Your task to perform on an android device: open app "Google Docs" Image 0: 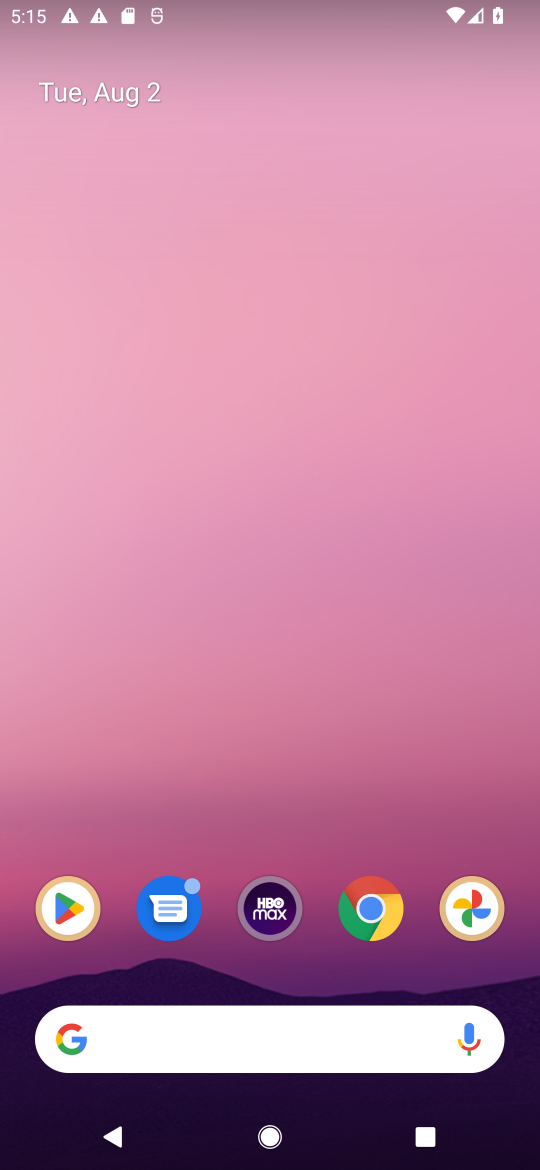
Step 0: press home button
Your task to perform on an android device: open app "Google Docs" Image 1: 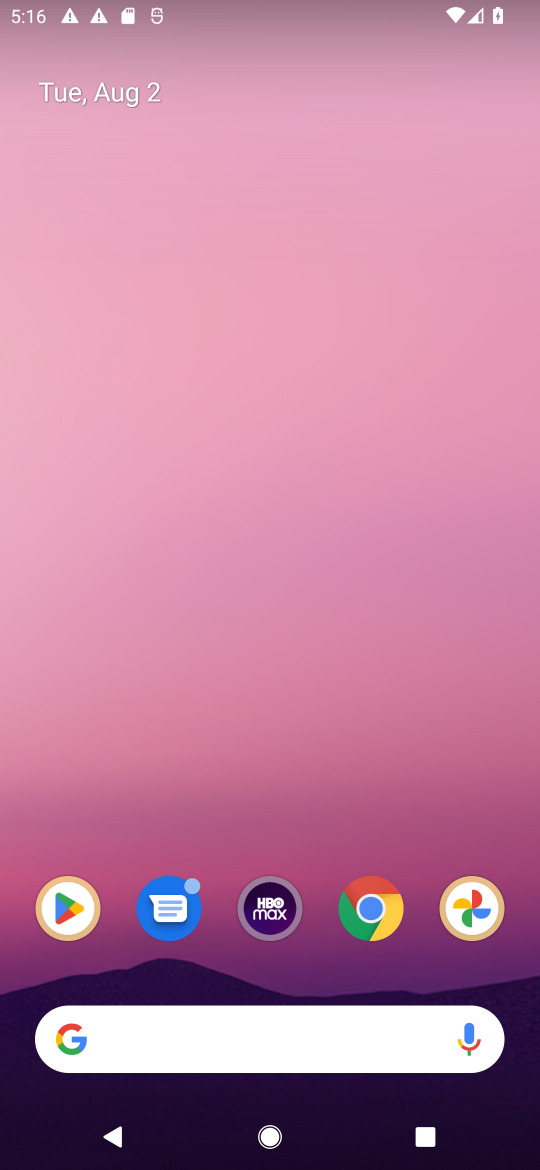
Step 1: click (64, 896)
Your task to perform on an android device: open app "Google Docs" Image 2: 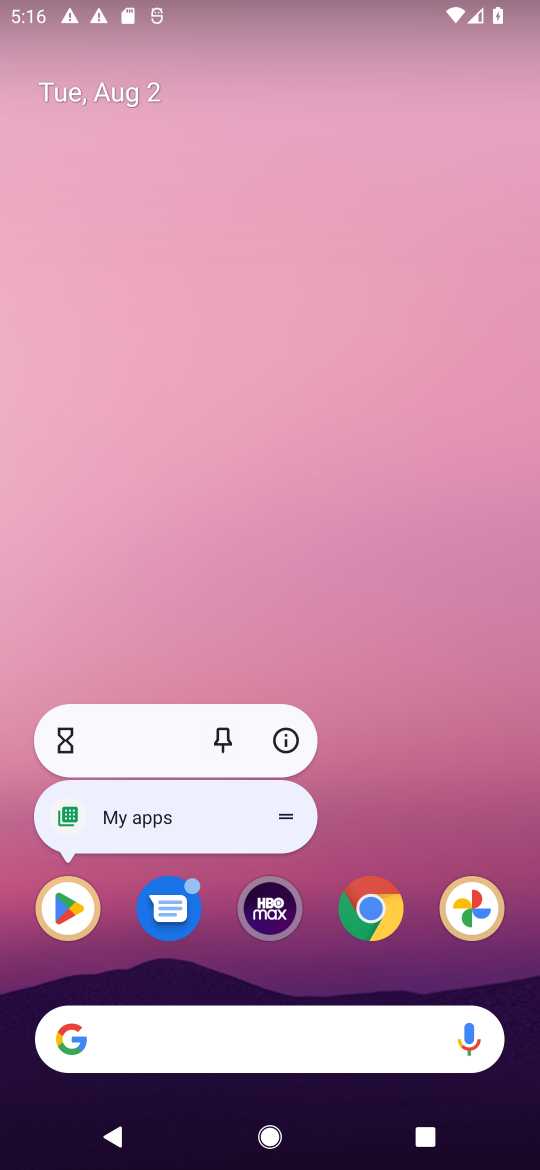
Step 2: click (64, 896)
Your task to perform on an android device: open app "Google Docs" Image 3: 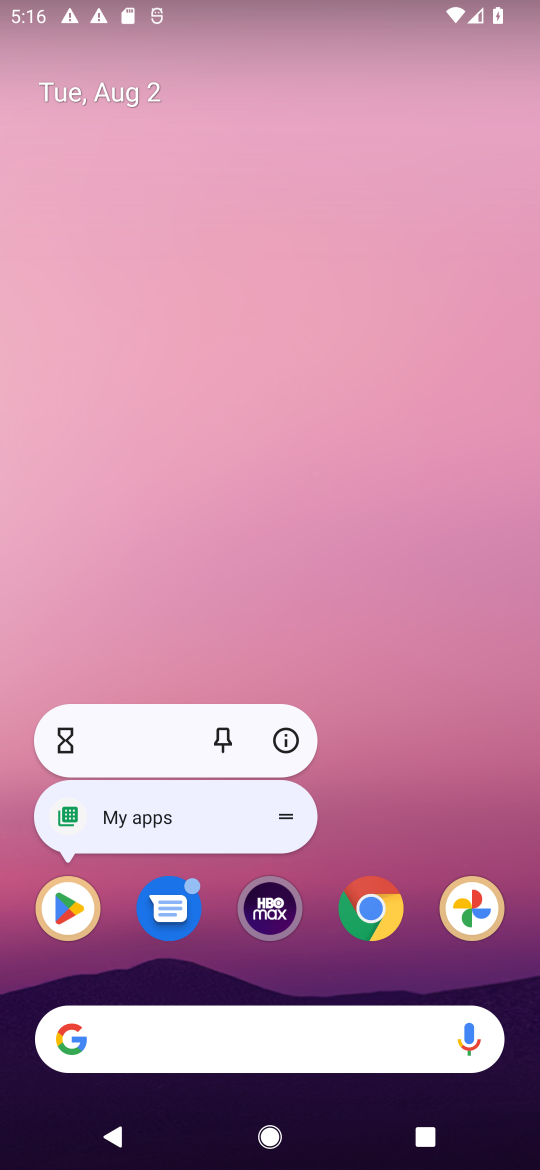
Step 3: click (64, 911)
Your task to perform on an android device: open app "Google Docs" Image 4: 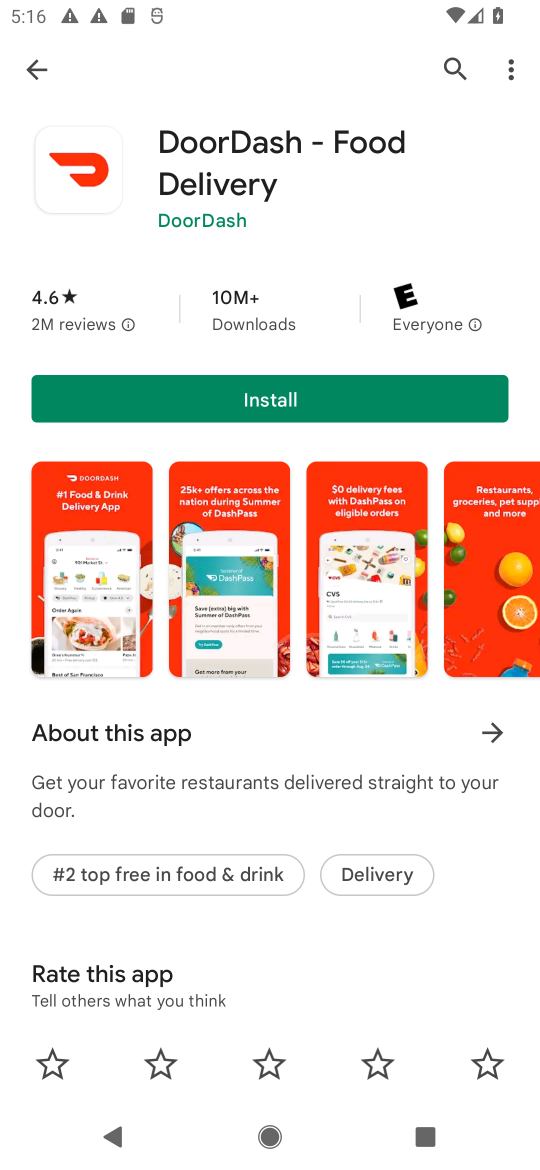
Step 4: click (35, 60)
Your task to perform on an android device: open app "Google Docs" Image 5: 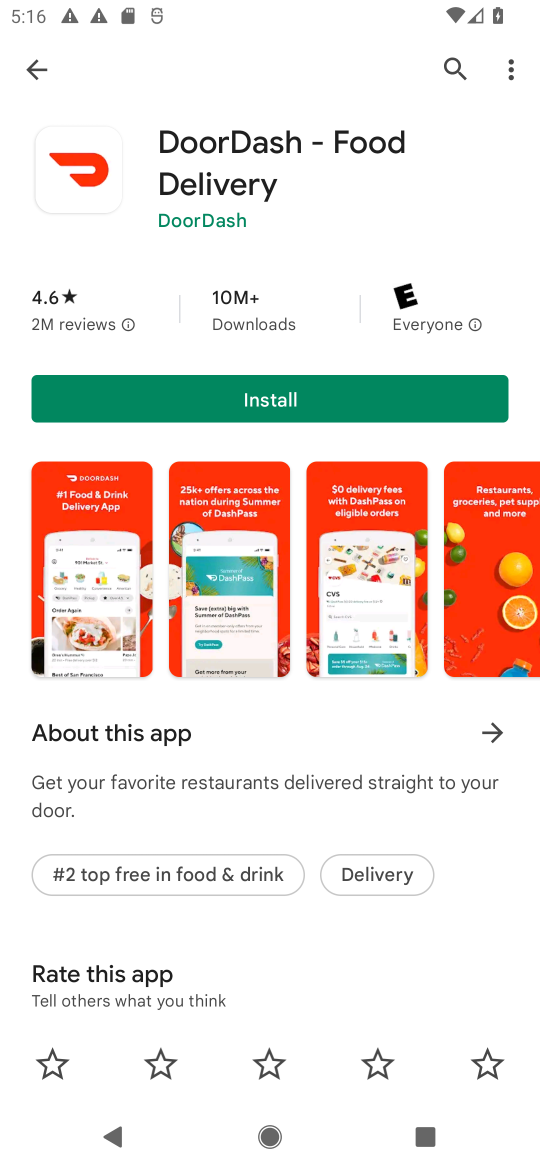
Step 5: click (458, 58)
Your task to perform on an android device: open app "Google Docs" Image 6: 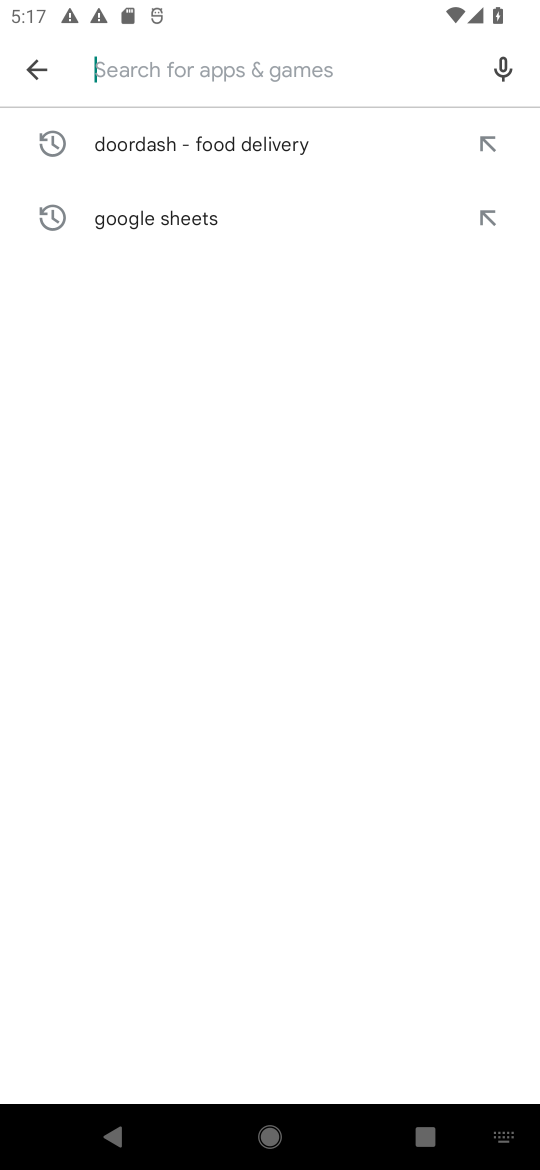
Step 6: type "Google Docs"
Your task to perform on an android device: open app "Google Docs" Image 7: 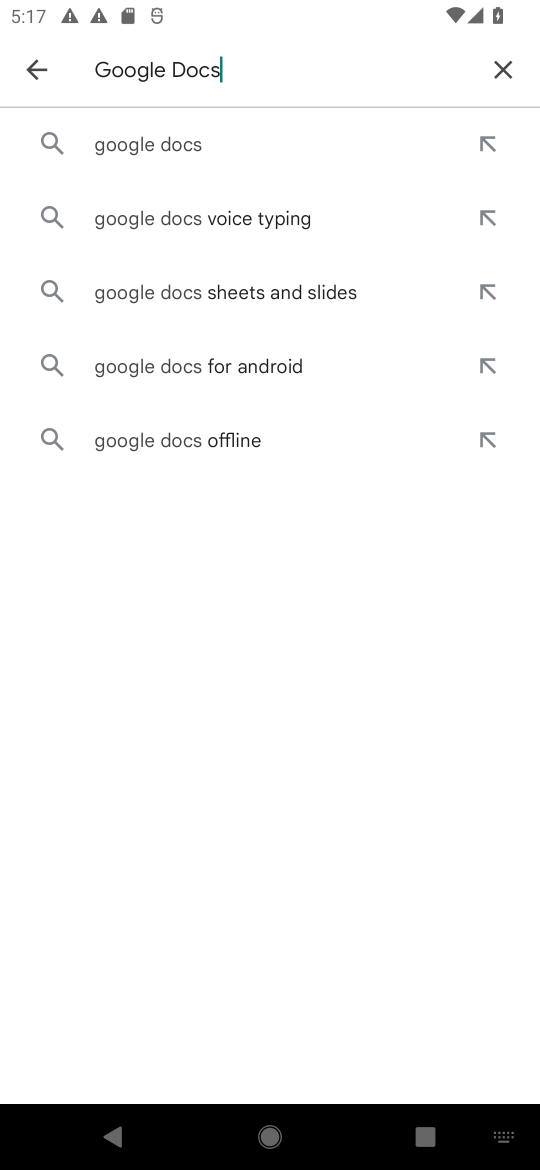
Step 7: click (181, 136)
Your task to perform on an android device: open app "Google Docs" Image 8: 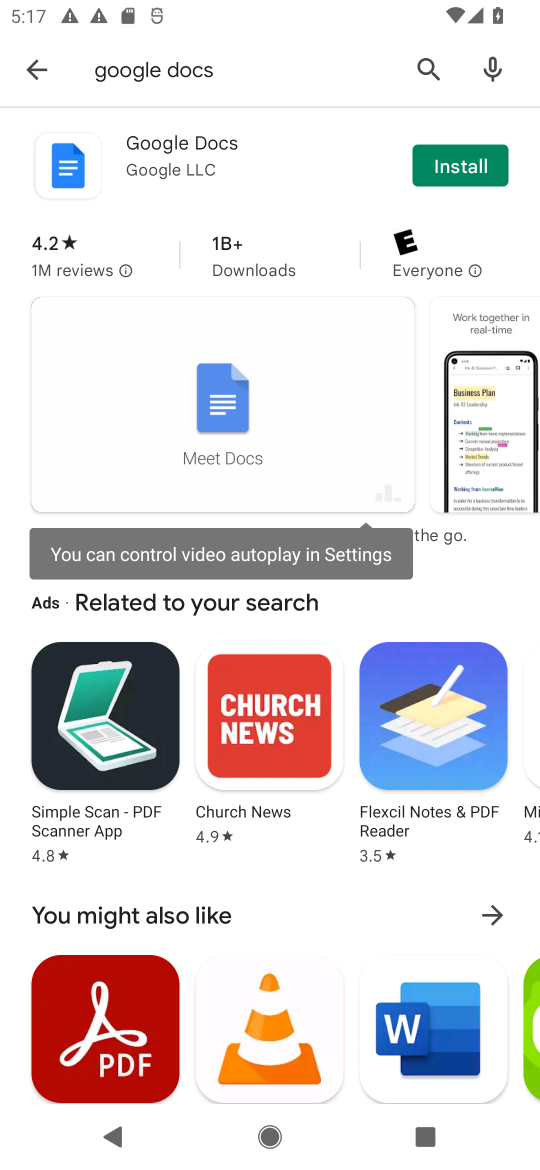
Step 8: click (242, 137)
Your task to perform on an android device: open app "Google Docs" Image 9: 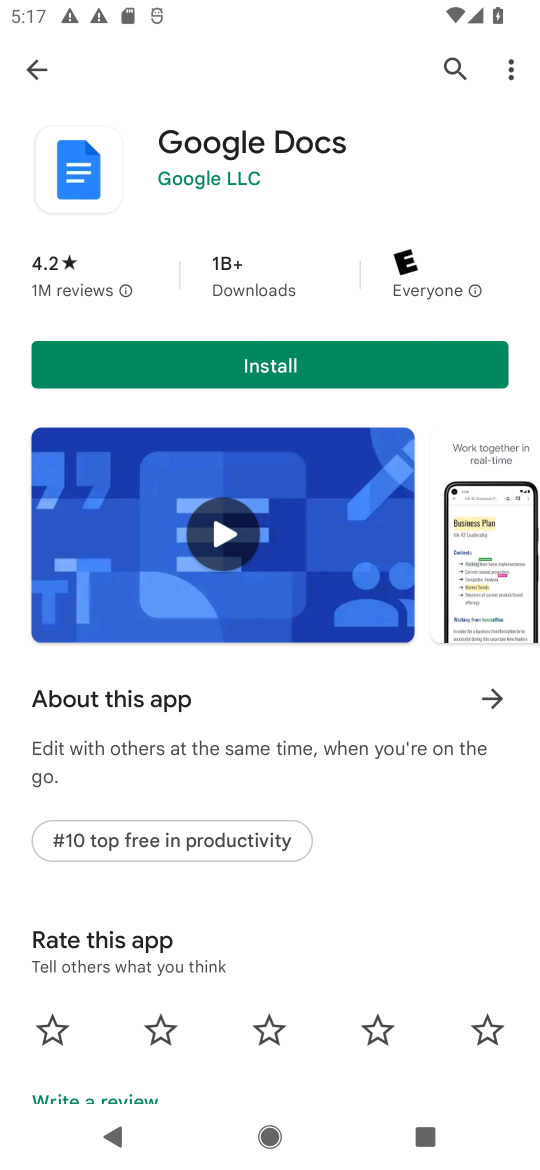
Step 9: task complete